Your task to perform on an android device: search for starred emails in the gmail app Image 0: 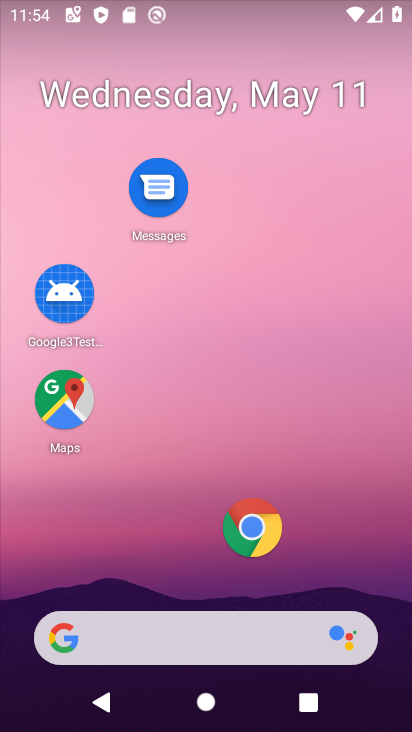
Step 0: drag from (191, 593) to (195, 101)
Your task to perform on an android device: search for starred emails in the gmail app Image 1: 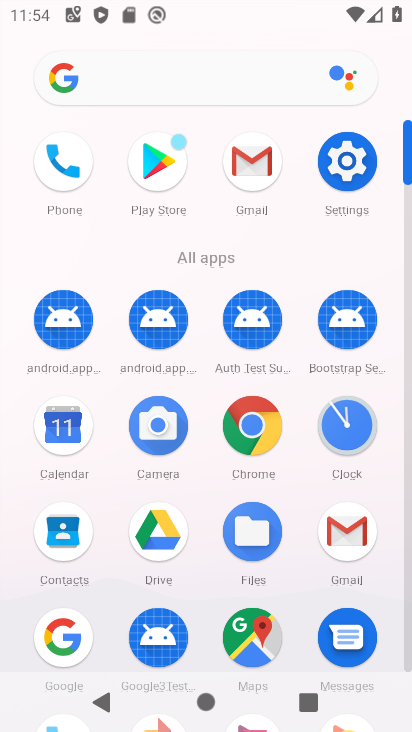
Step 1: click (352, 530)
Your task to perform on an android device: search for starred emails in the gmail app Image 2: 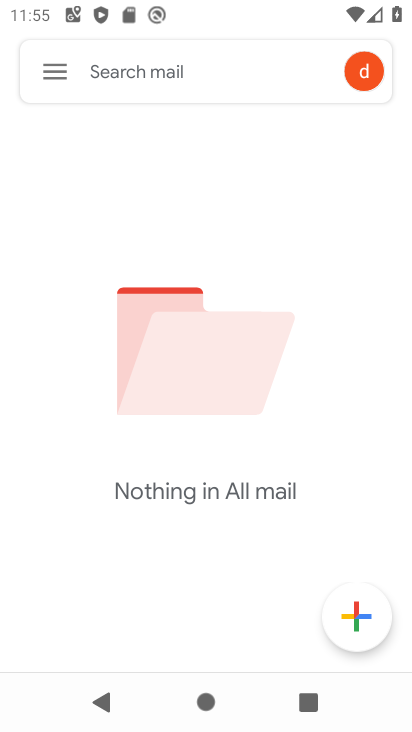
Step 2: click (62, 62)
Your task to perform on an android device: search for starred emails in the gmail app Image 3: 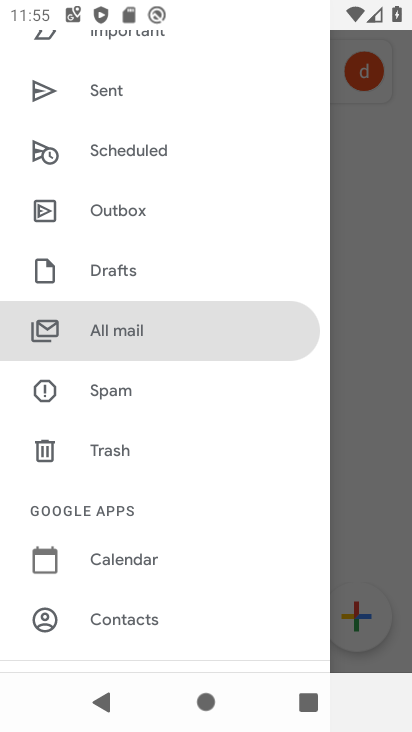
Step 3: drag from (193, 137) to (227, 363)
Your task to perform on an android device: search for starred emails in the gmail app Image 4: 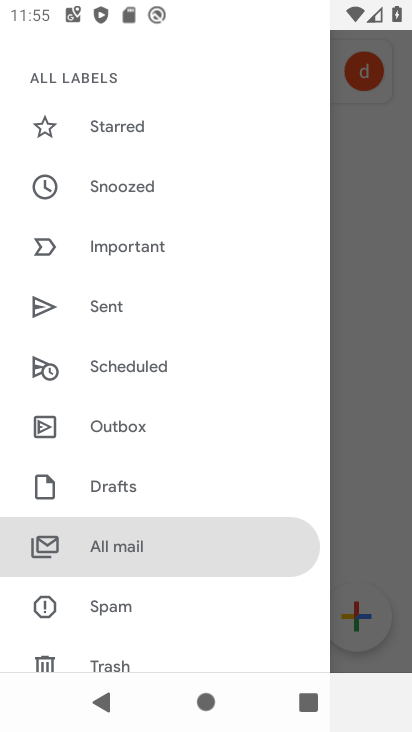
Step 4: click (123, 128)
Your task to perform on an android device: search for starred emails in the gmail app Image 5: 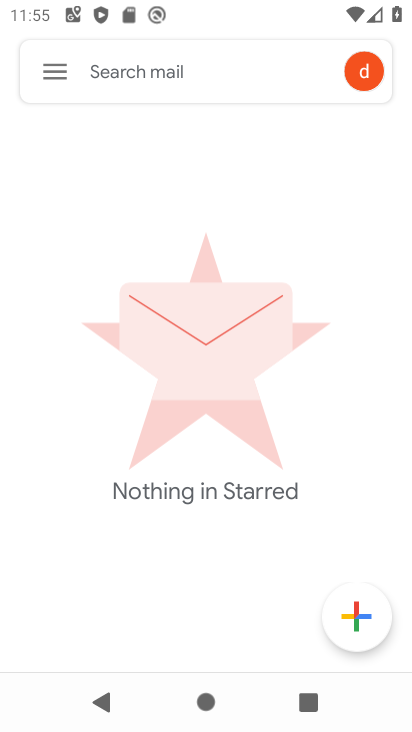
Step 5: task complete